Your task to perform on an android device: Play the last video I watched on Youtube Image 0: 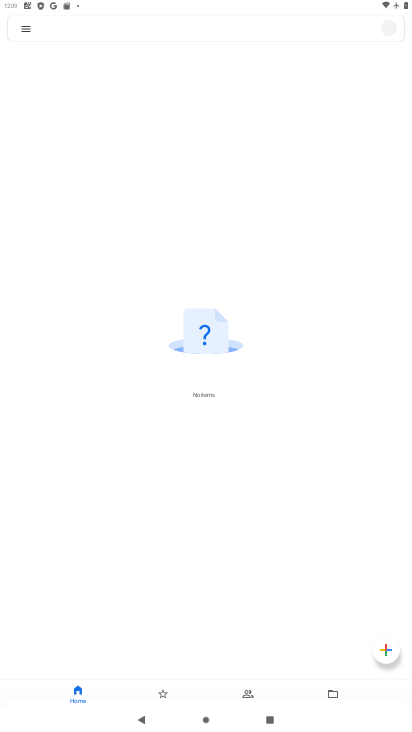
Step 0: drag from (258, 569) to (282, 195)
Your task to perform on an android device: Play the last video I watched on Youtube Image 1: 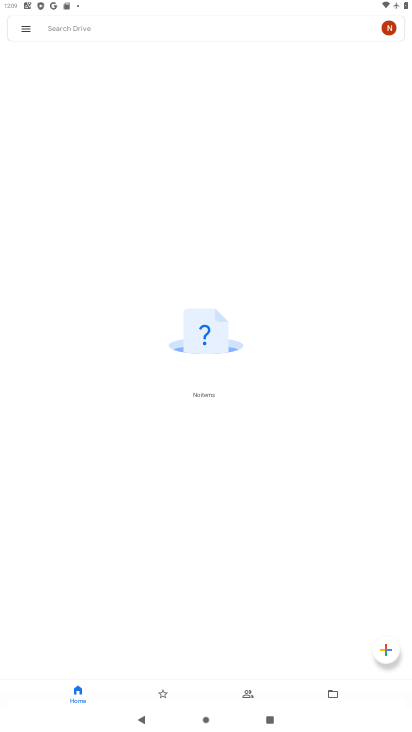
Step 1: press home button
Your task to perform on an android device: Play the last video I watched on Youtube Image 2: 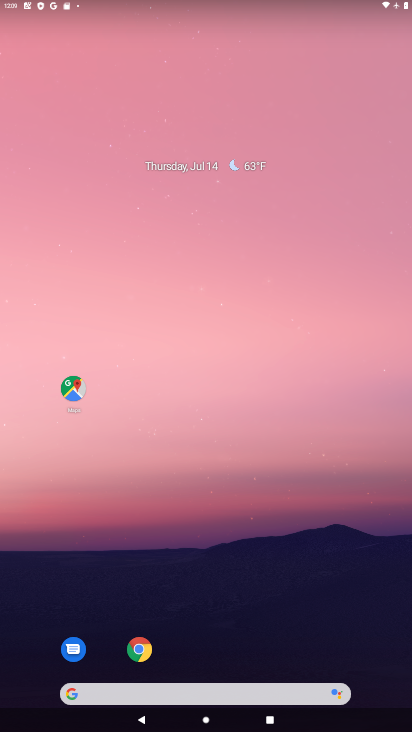
Step 2: drag from (244, 593) to (286, 212)
Your task to perform on an android device: Play the last video I watched on Youtube Image 3: 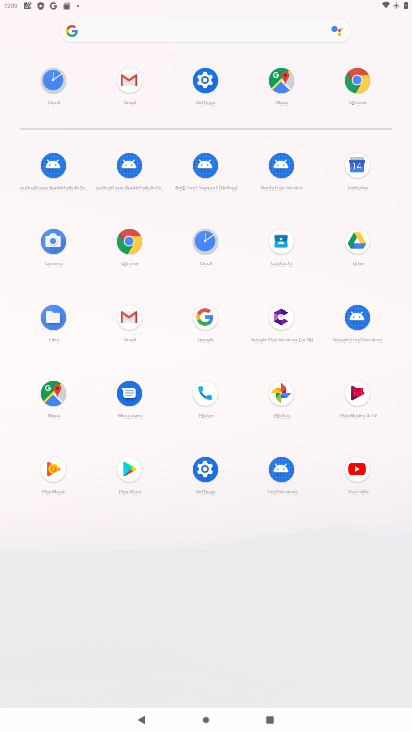
Step 3: click (352, 463)
Your task to perform on an android device: Play the last video I watched on Youtube Image 4: 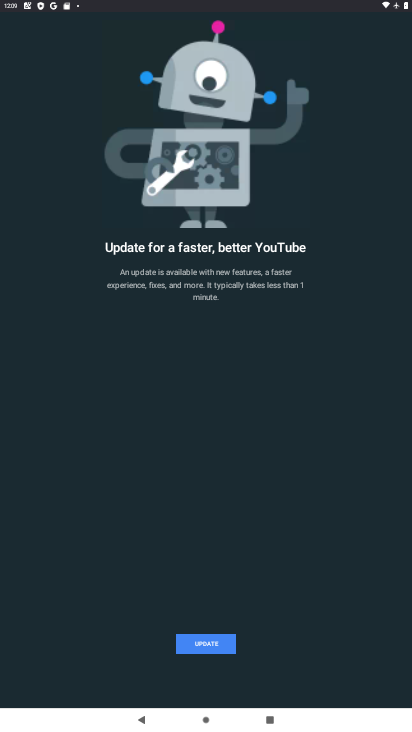
Step 4: task complete